Your task to perform on an android device: turn off smart reply in the gmail app Image 0: 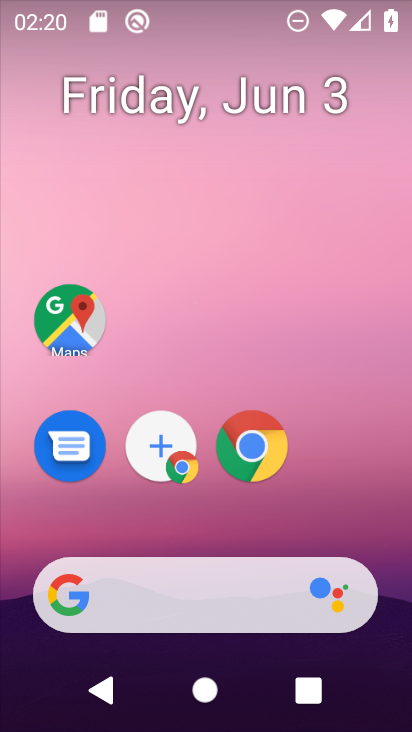
Step 0: drag from (133, 617) to (175, 120)
Your task to perform on an android device: turn off smart reply in the gmail app Image 1: 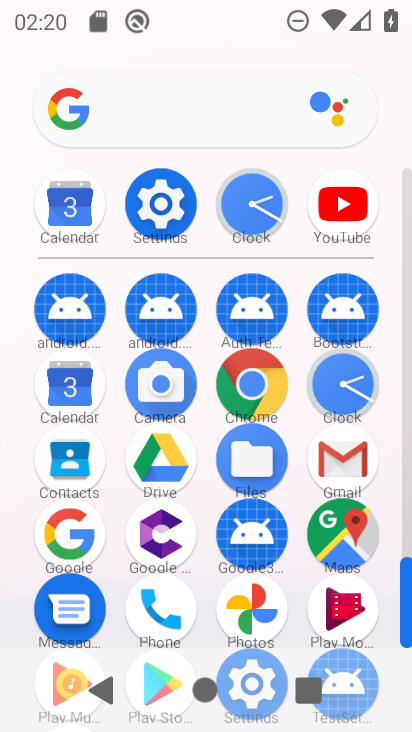
Step 1: click (330, 463)
Your task to perform on an android device: turn off smart reply in the gmail app Image 2: 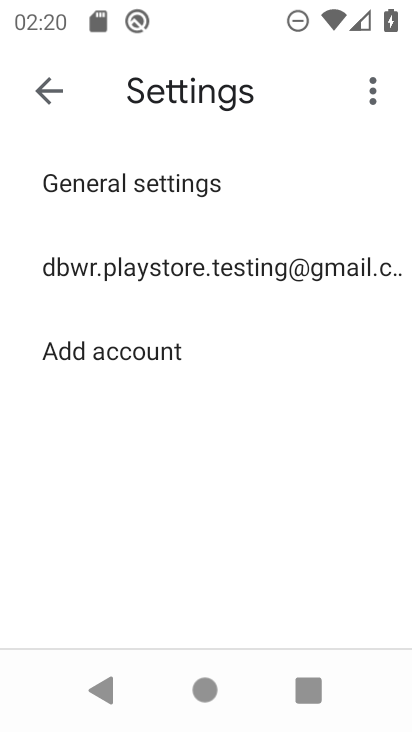
Step 2: click (134, 261)
Your task to perform on an android device: turn off smart reply in the gmail app Image 3: 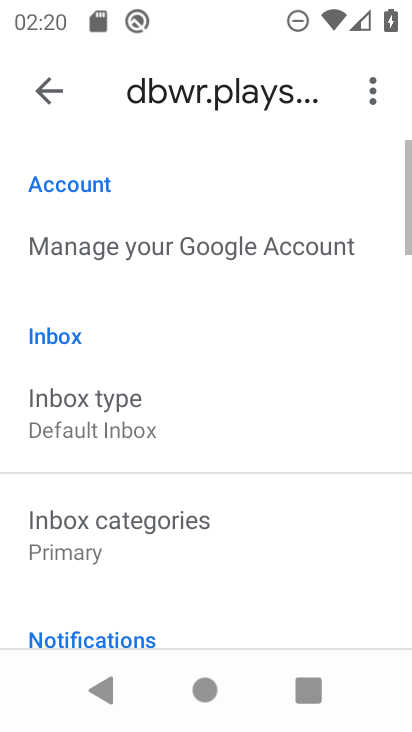
Step 3: drag from (265, 574) to (158, 164)
Your task to perform on an android device: turn off smart reply in the gmail app Image 4: 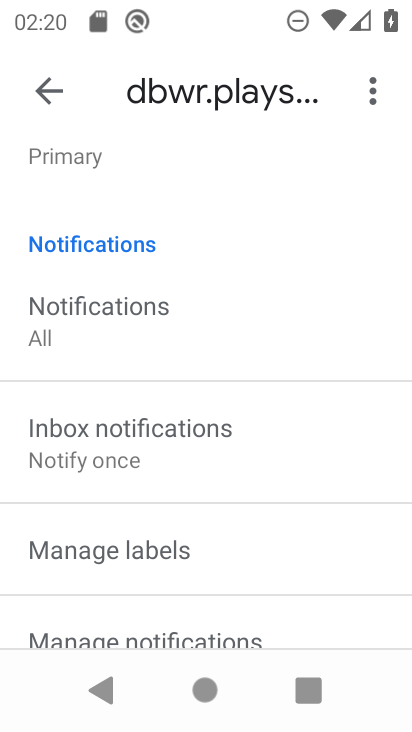
Step 4: drag from (279, 566) to (211, 115)
Your task to perform on an android device: turn off smart reply in the gmail app Image 5: 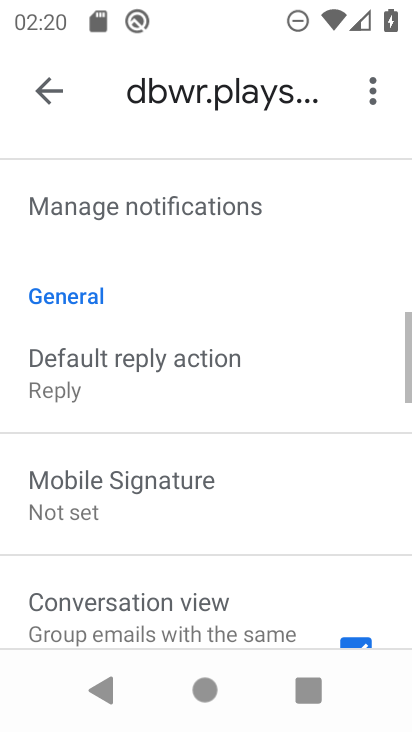
Step 5: drag from (202, 495) to (32, 14)
Your task to perform on an android device: turn off smart reply in the gmail app Image 6: 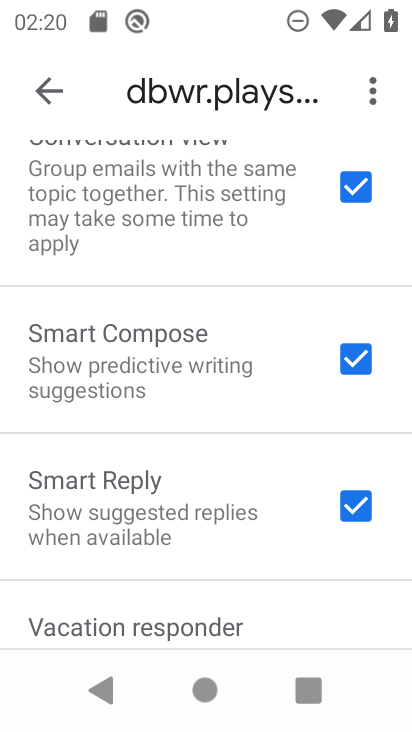
Step 6: click (350, 502)
Your task to perform on an android device: turn off smart reply in the gmail app Image 7: 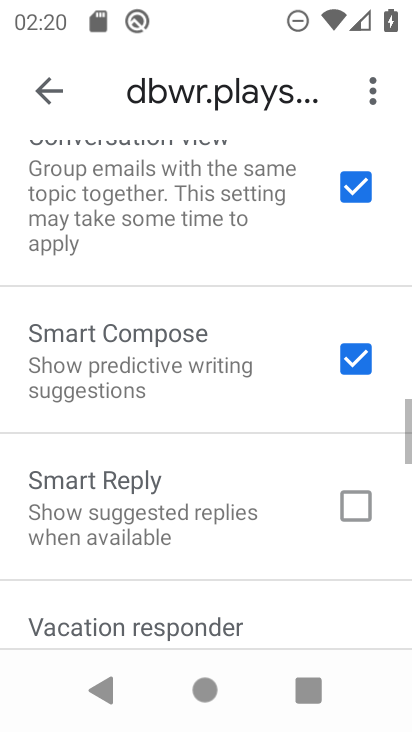
Step 7: task complete